Your task to perform on an android device: Open settings on Google Maps Image 0: 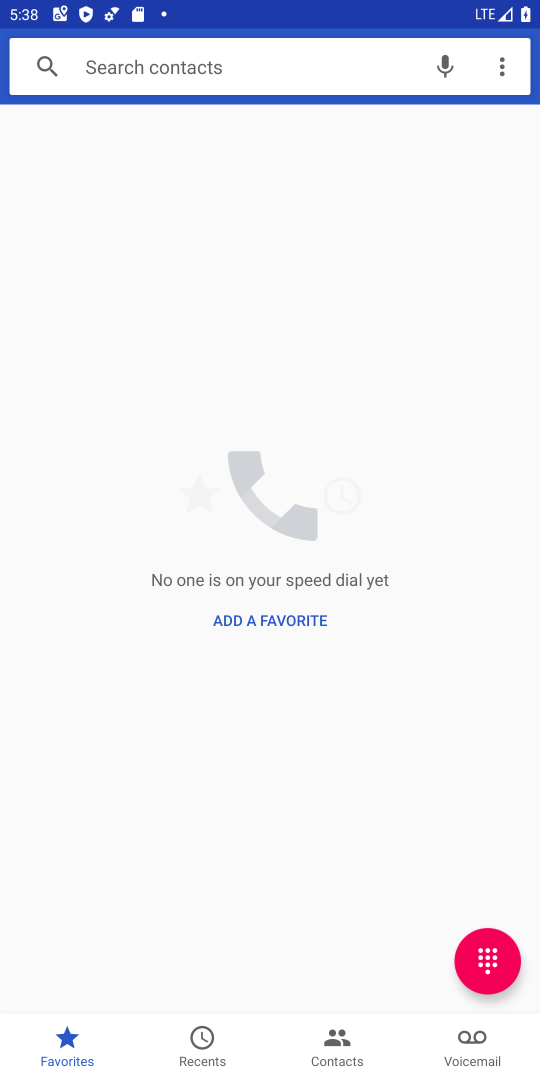
Step 0: press home button
Your task to perform on an android device: Open settings on Google Maps Image 1: 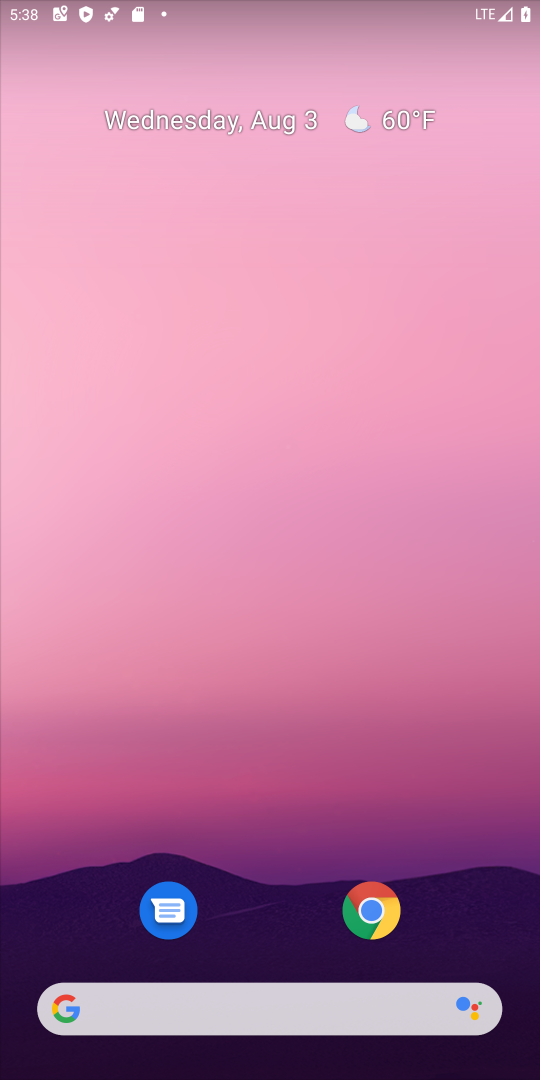
Step 1: drag from (262, 923) to (382, 102)
Your task to perform on an android device: Open settings on Google Maps Image 2: 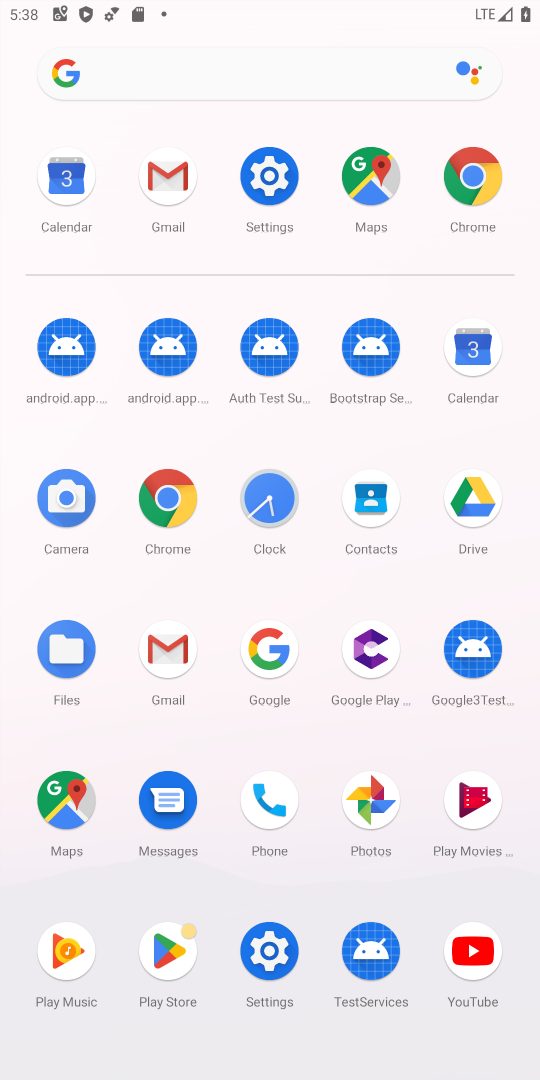
Step 2: click (265, 647)
Your task to perform on an android device: Open settings on Google Maps Image 3: 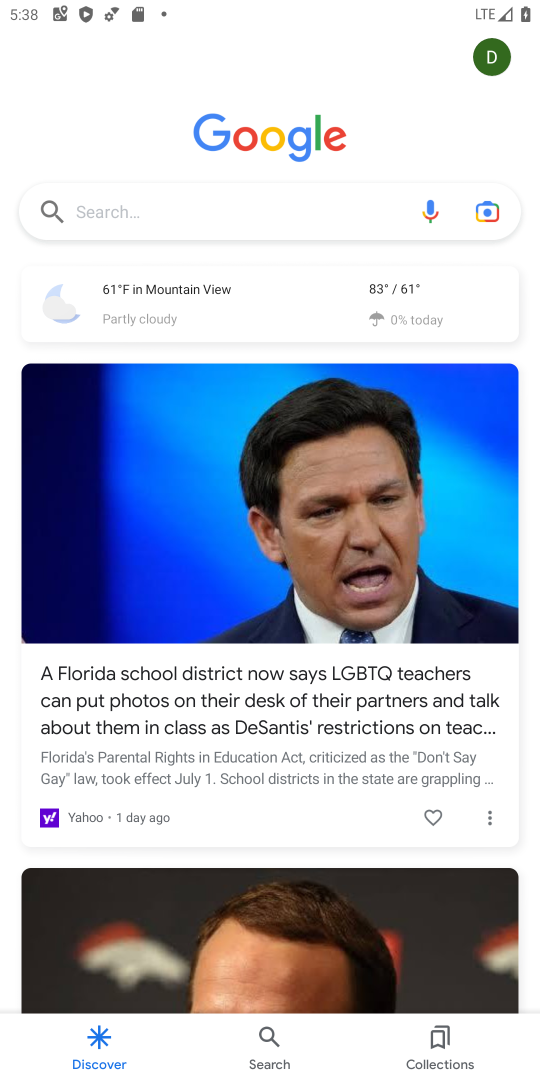
Step 3: drag from (494, 68) to (536, 181)
Your task to perform on an android device: Open settings on Google Maps Image 4: 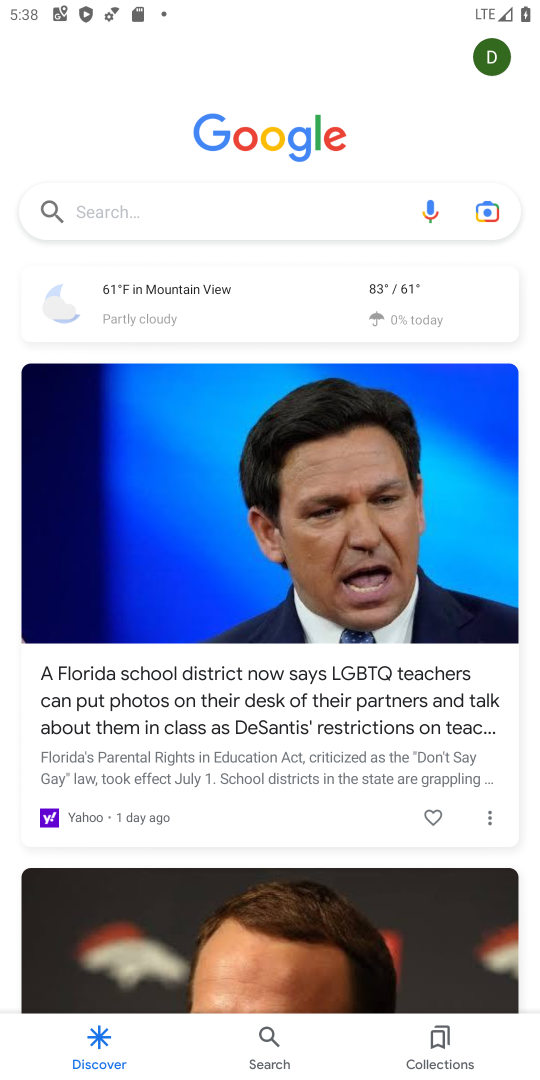
Step 4: press home button
Your task to perform on an android device: Open settings on Google Maps Image 5: 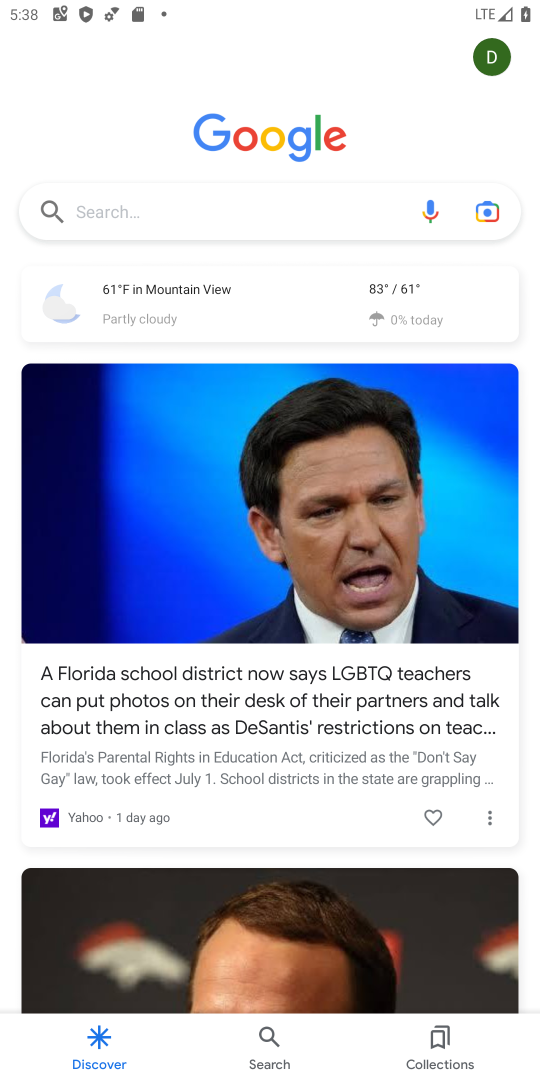
Step 5: drag from (536, 181) to (499, 650)
Your task to perform on an android device: Open settings on Google Maps Image 6: 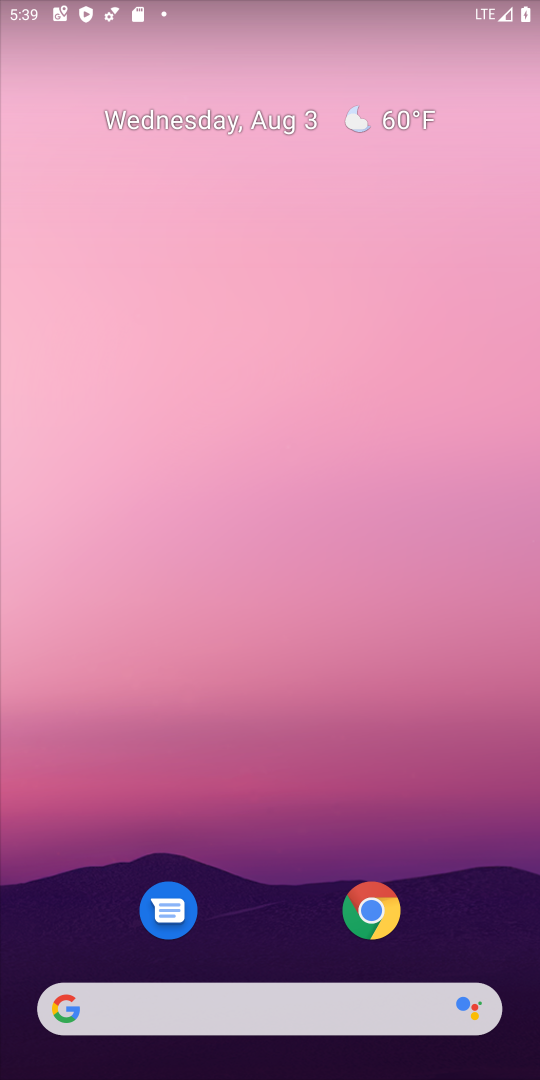
Step 6: drag from (224, 905) to (349, 121)
Your task to perform on an android device: Open settings on Google Maps Image 7: 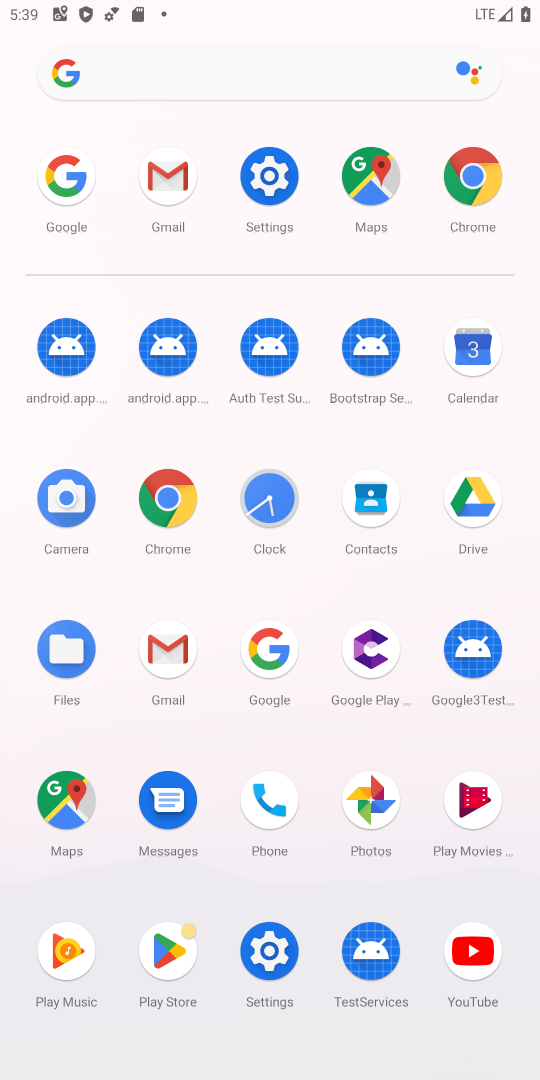
Step 7: click (55, 789)
Your task to perform on an android device: Open settings on Google Maps Image 8: 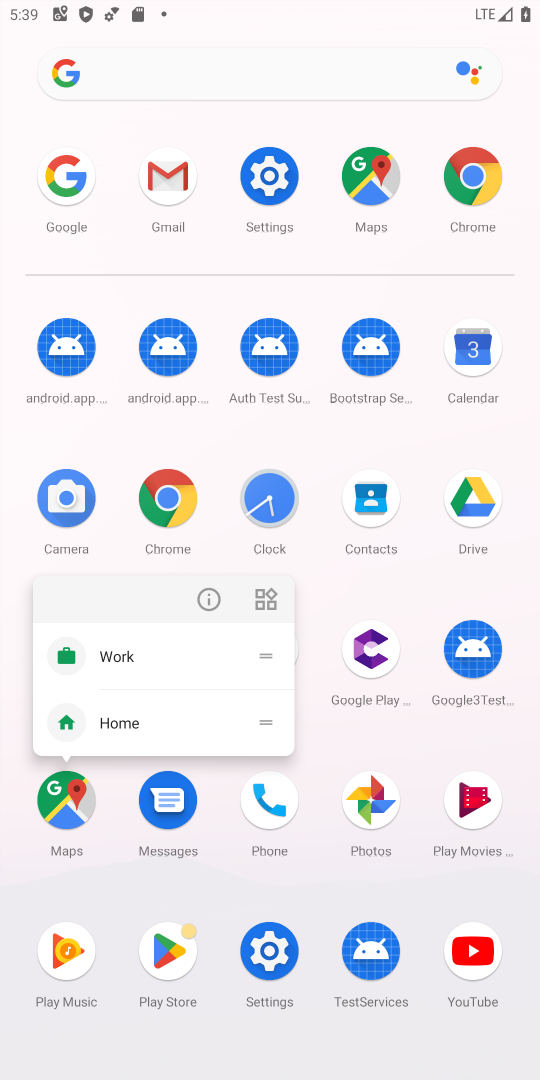
Step 8: click (55, 796)
Your task to perform on an android device: Open settings on Google Maps Image 9: 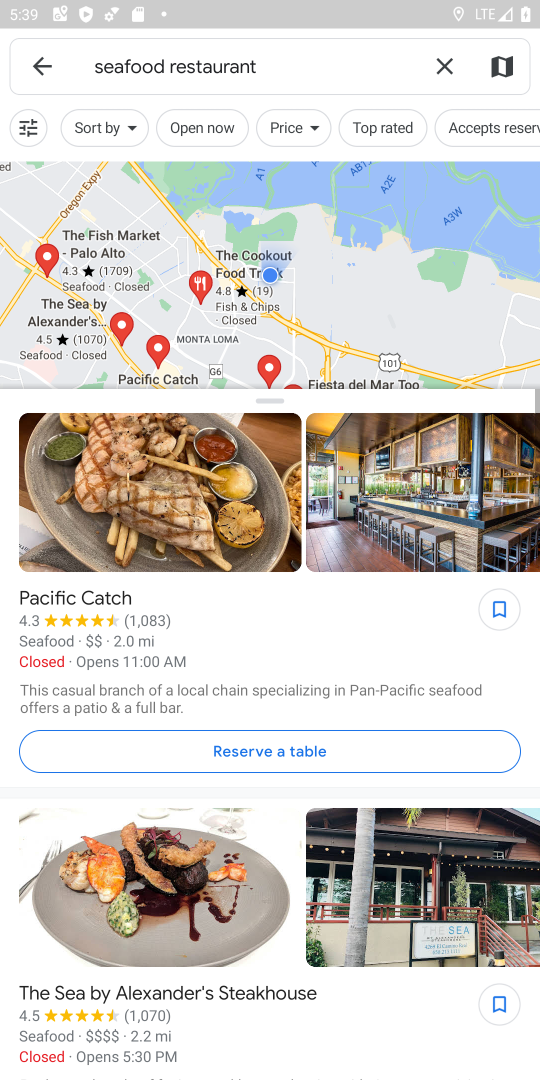
Step 9: click (443, 66)
Your task to perform on an android device: Open settings on Google Maps Image 10: 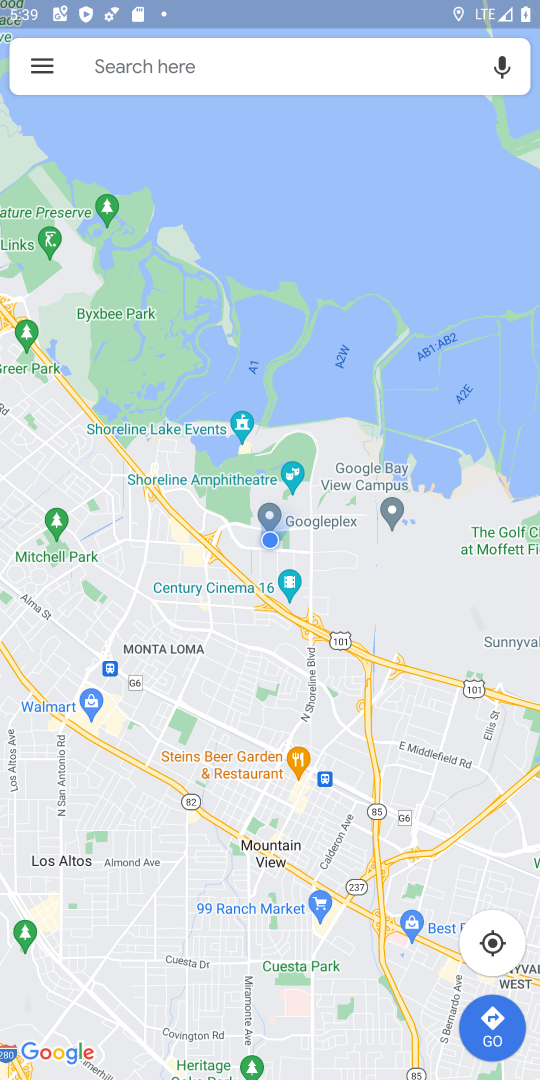
Step 10: task complete